Your task to perform on an android device: toggle airplane mode Image 0: 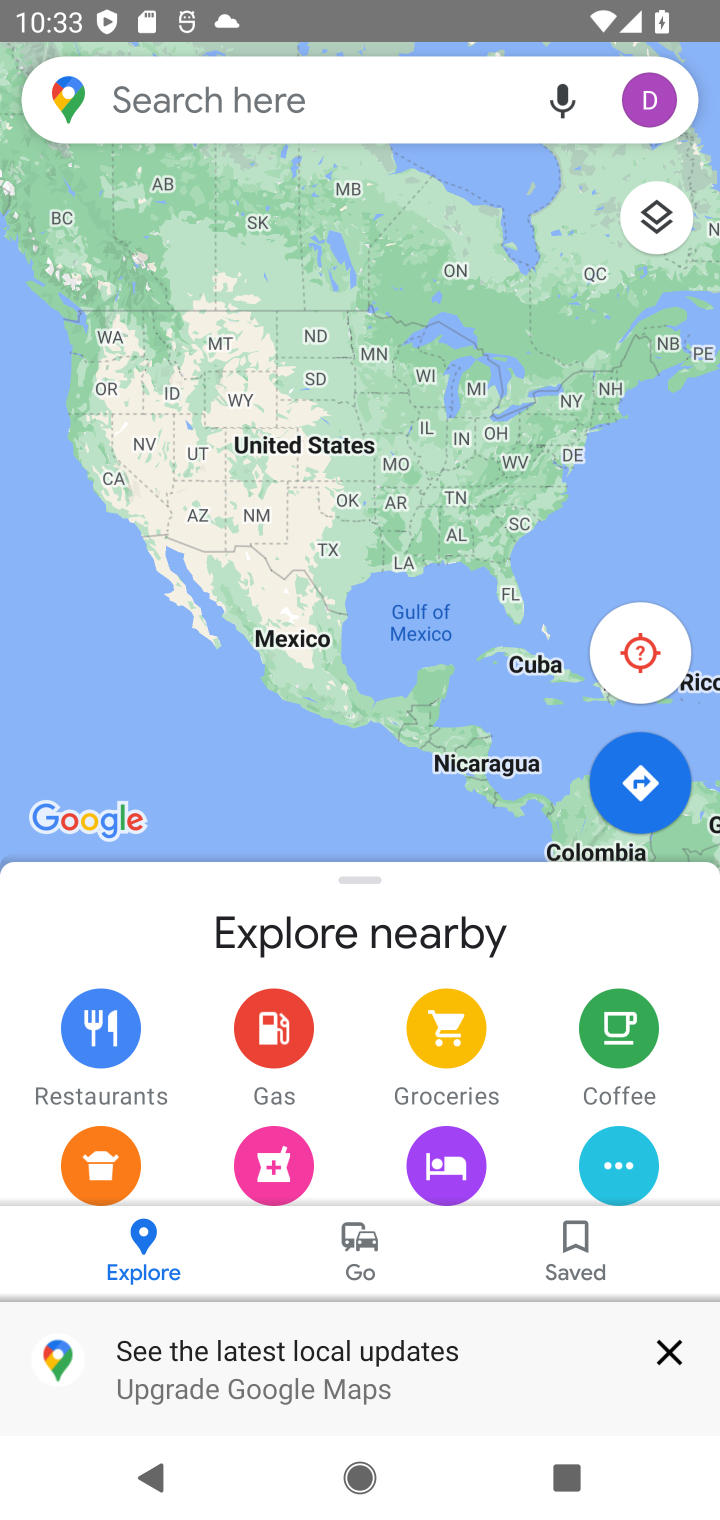
Step 0: press home button
Your task to perform on an android device: toggle airplane mode Image 1: 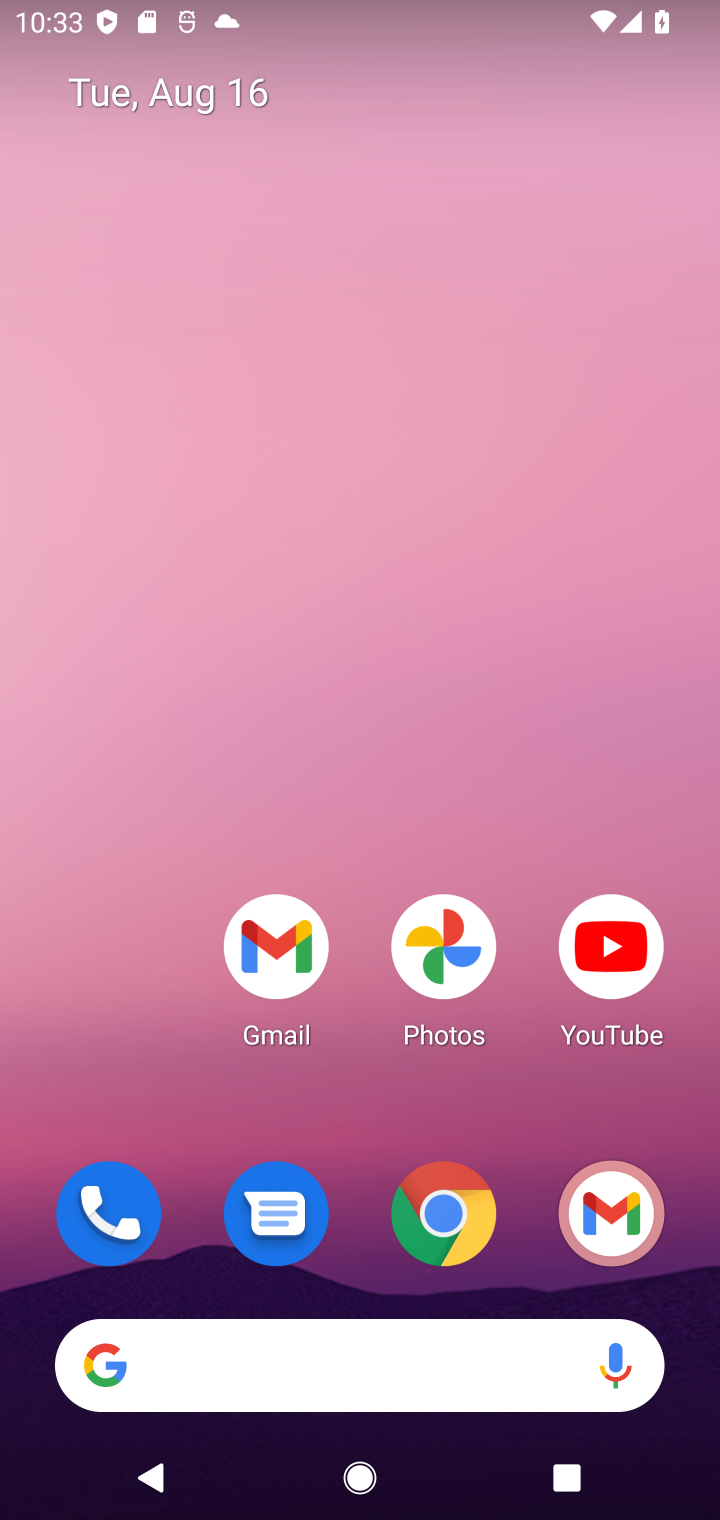
Step 1: drag from (354, 1176) to (319, 192)
Your task to perform on an android device: toggle airplane mode Image 2: 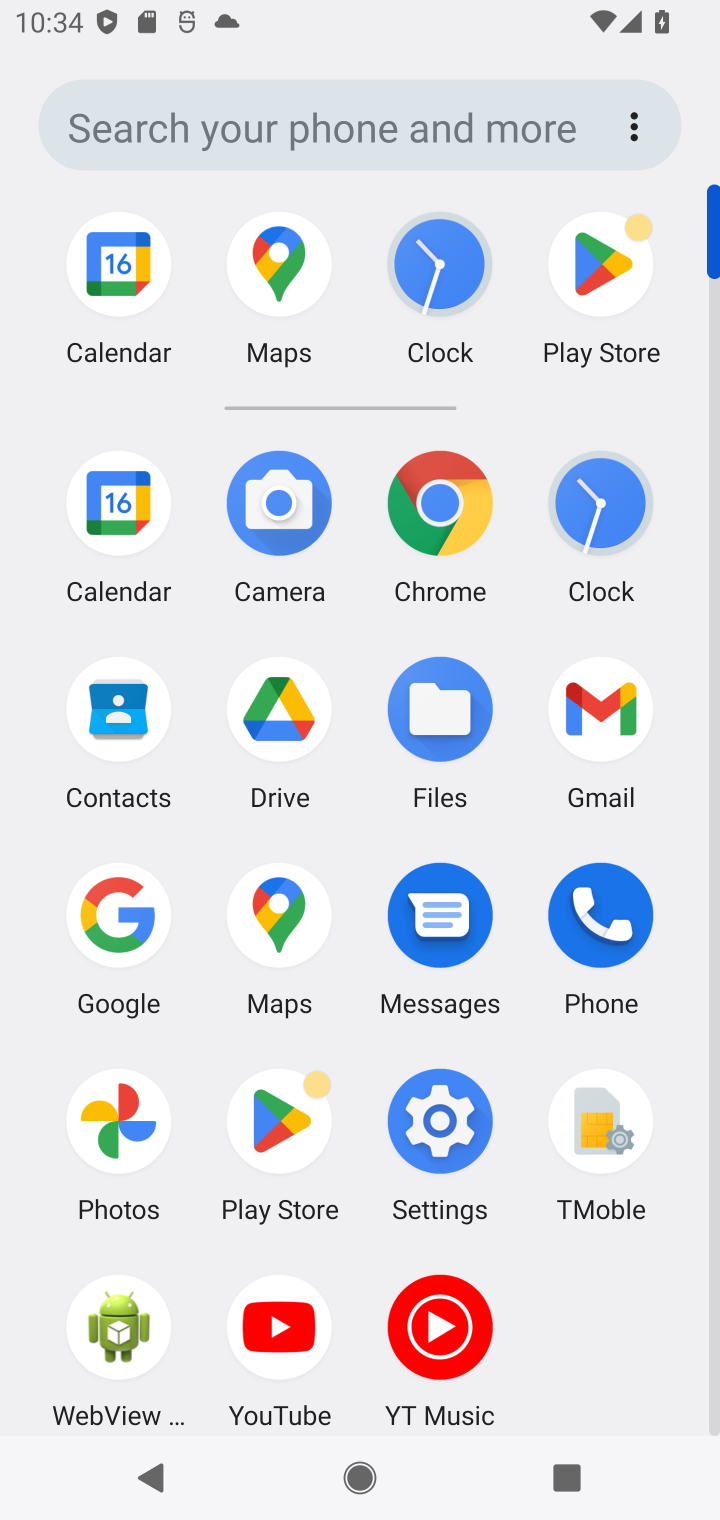
Step 2: click (445, 1127)
Your task to perform on an android device: toggle airplane mode Image 3: 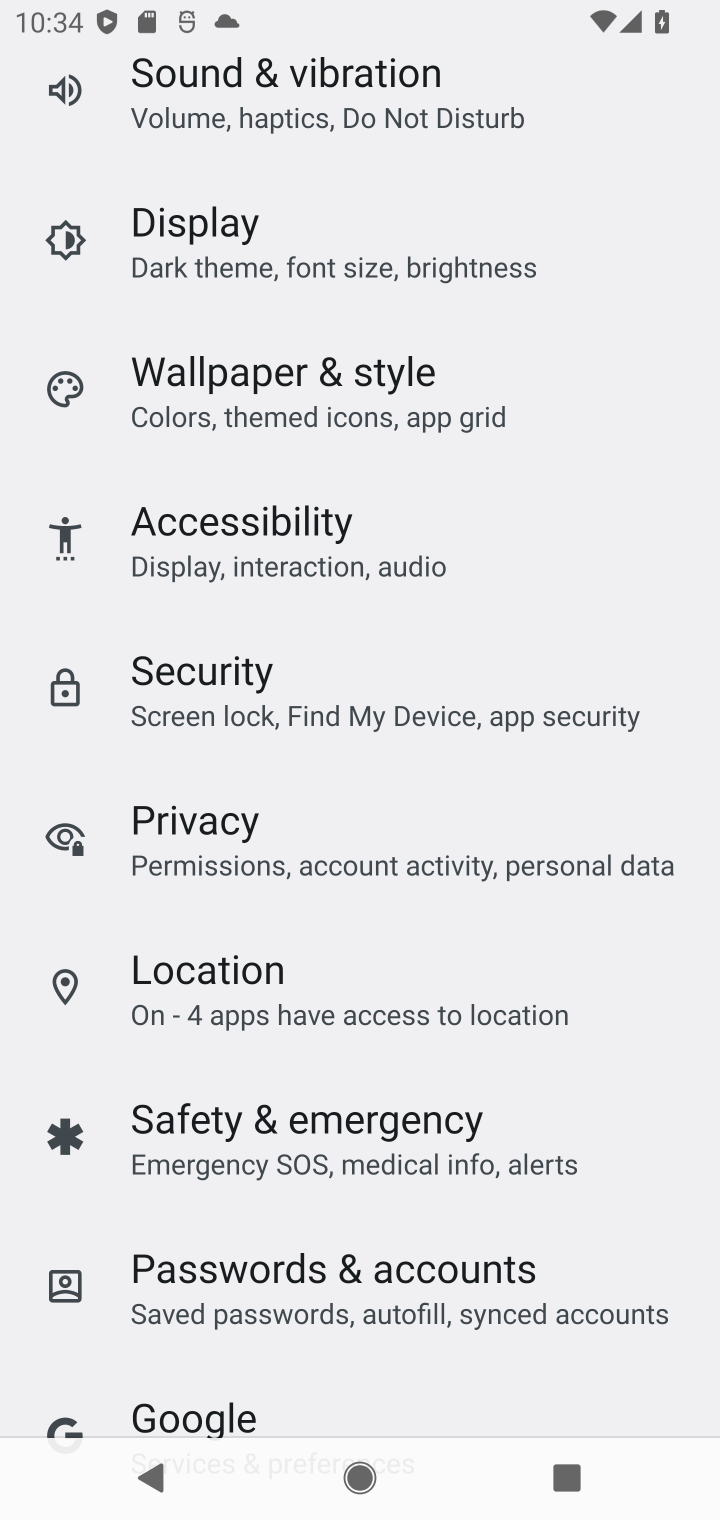
Step 3: drag from (282, 148) to (256, 1344)
Your task to perform on an android device: toggle airplane mode Image 4: 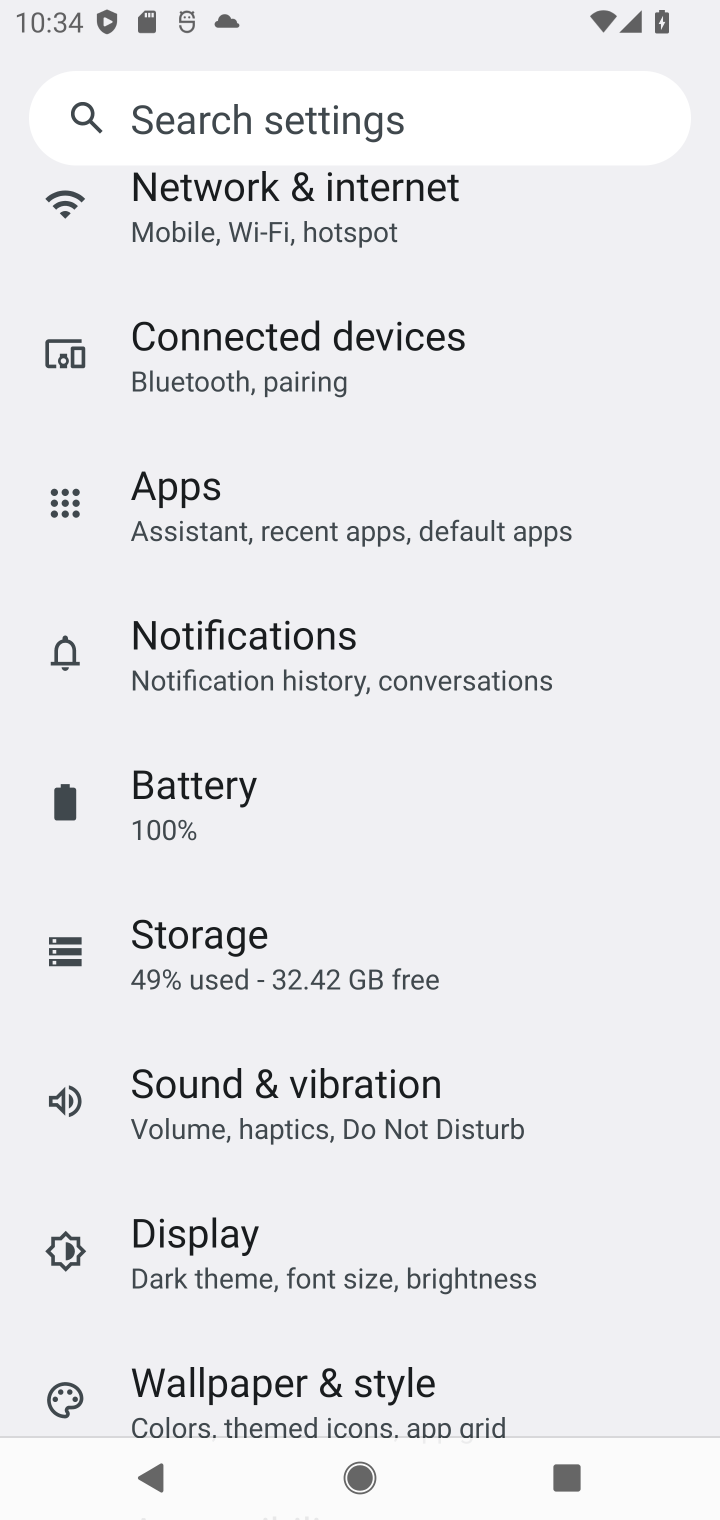
Step 4: drag from (310, 203) to (296, 1334)
Your task to perform on an android device: toggle airplane mode Image 5: 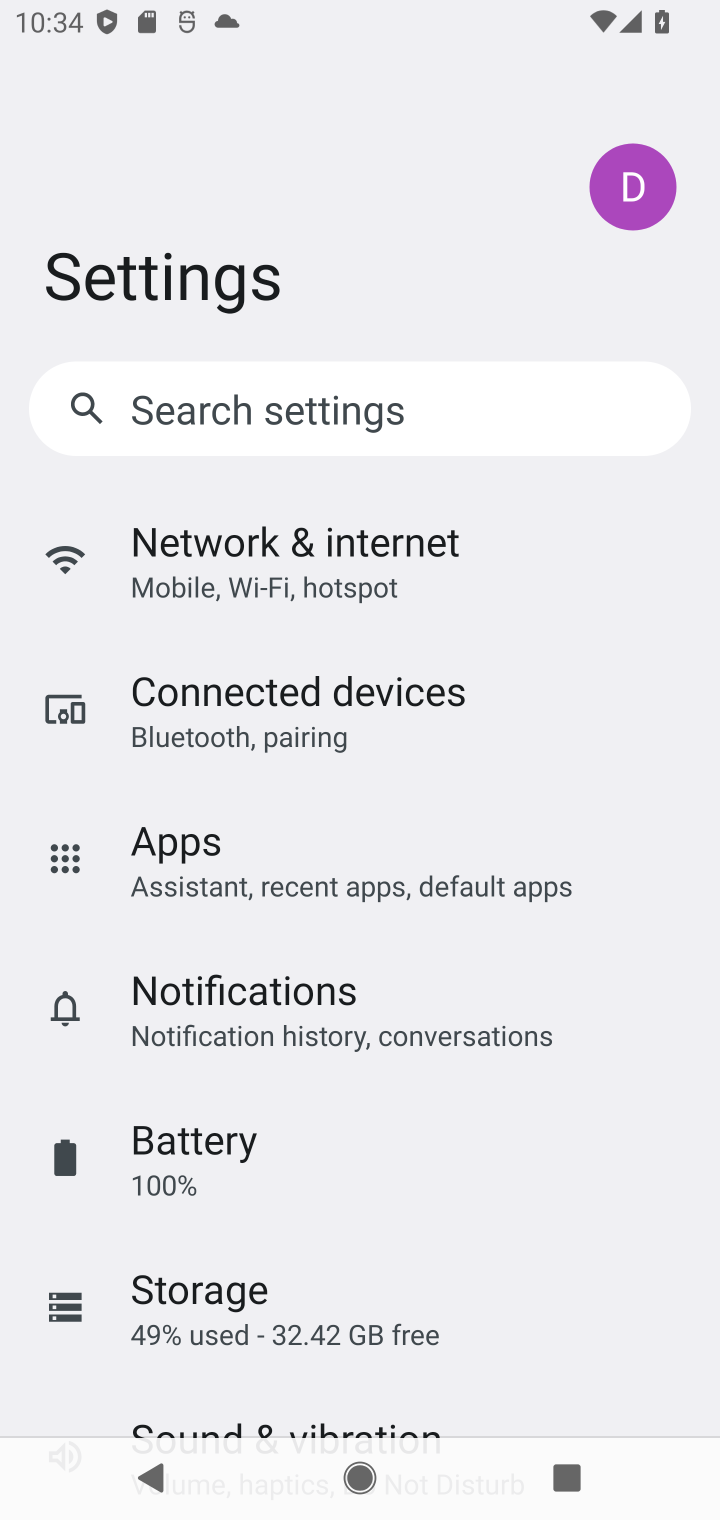
Step 5: click (336, 545)
Your task to perform on an android device: toggle airplane mode Image 6: 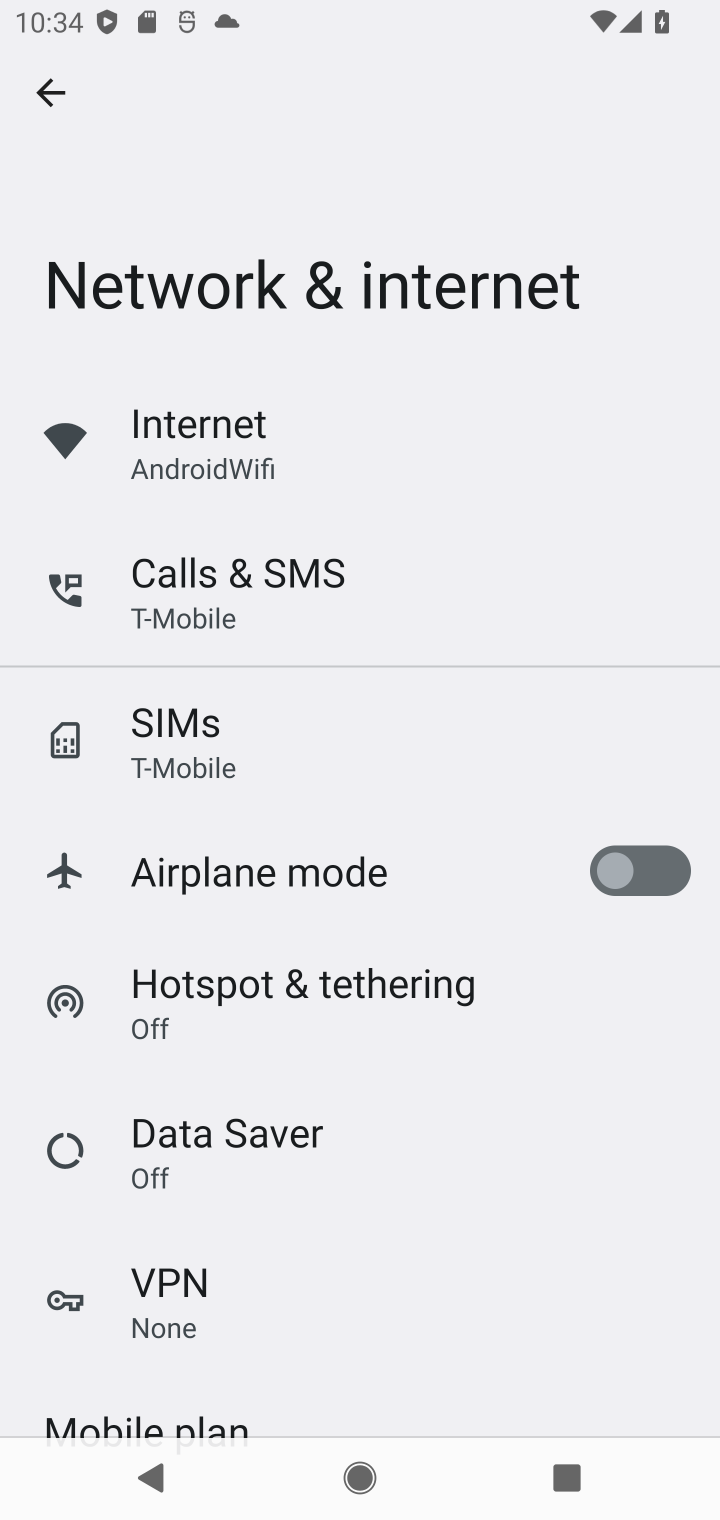
Step 6: click (658, 843)
Your task to perform on an android device: toggle airplane mode Image 7: 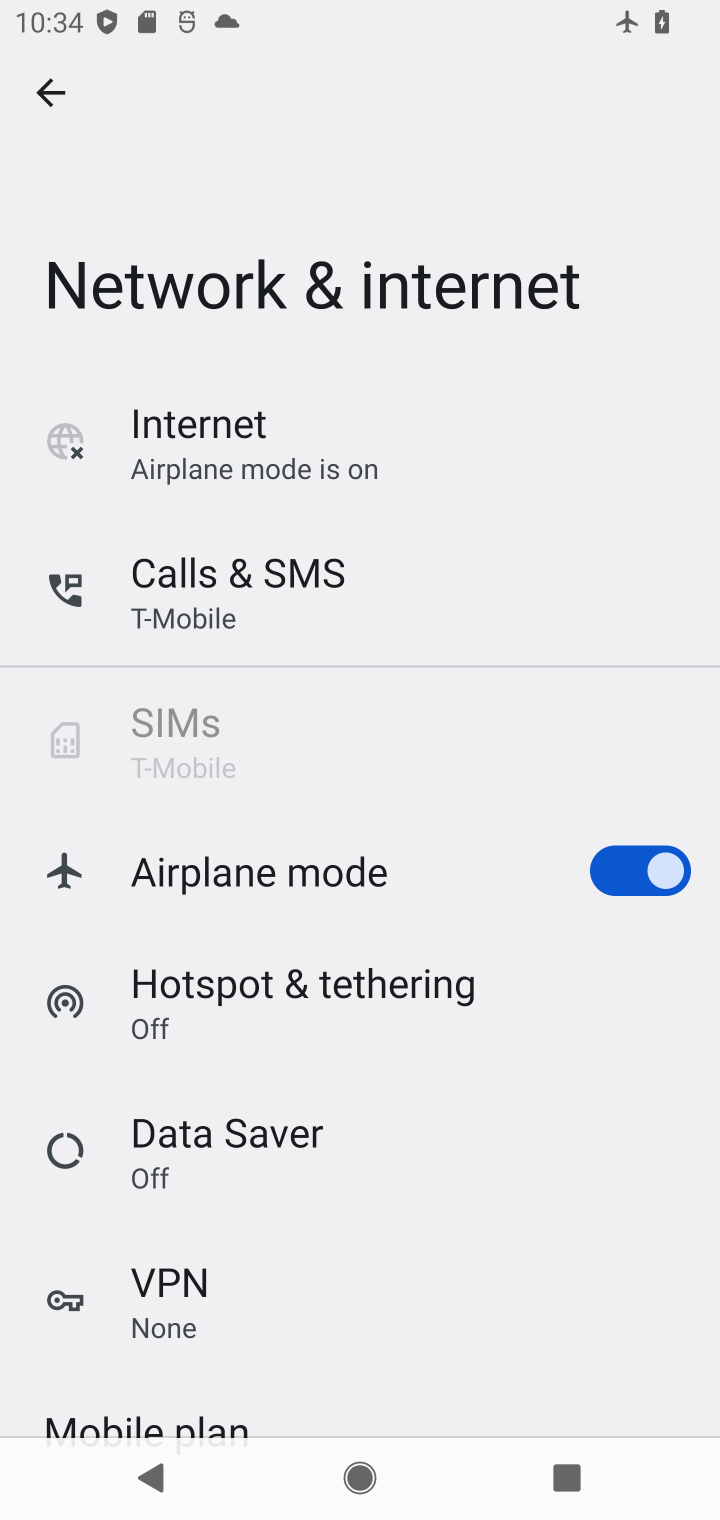
Step 7: task complete